Your task to perform on an android device: Open network settings Image 0: 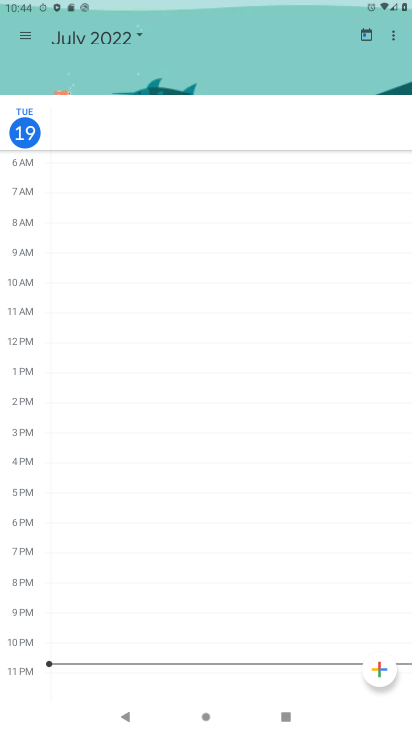
Step 0: press back button
Your task to perform on an android device: Open network settings Image 1: 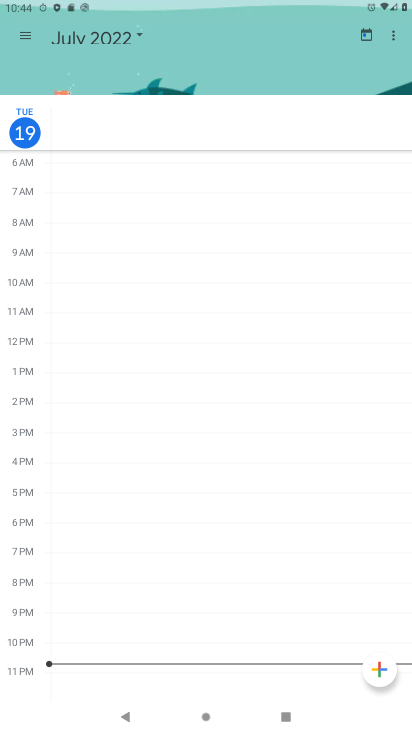
Step 1: press back button
Your task to perform on an android device: Open network settings Image 2: 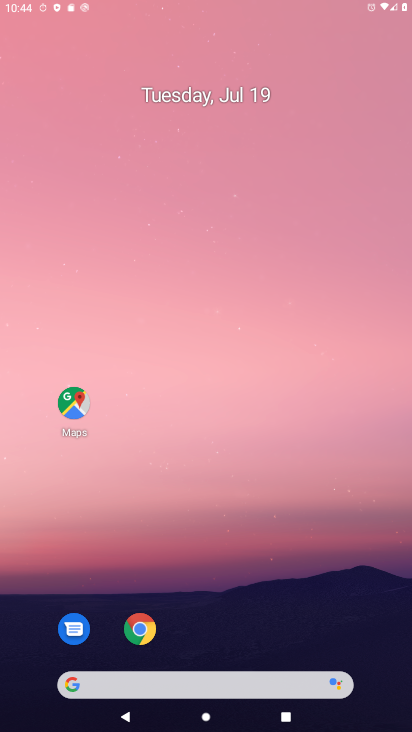
Step 2: press back button
Your task to perform on an android device: Open network settings Image 3: 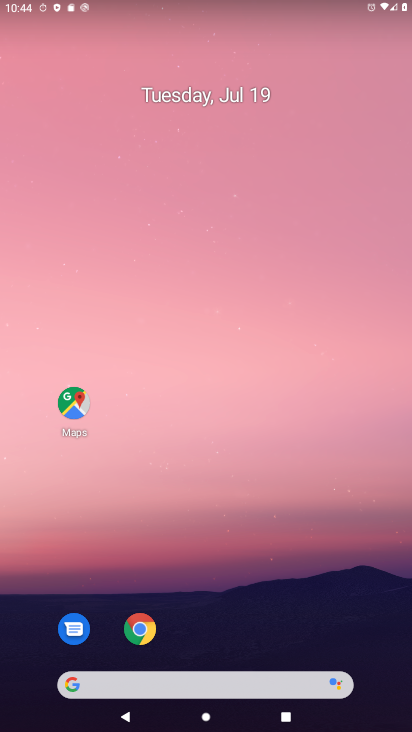
Step 3: drag from (281, 662) to (279, 96)
Your task to perform on an android device: Open network settings Image 4: 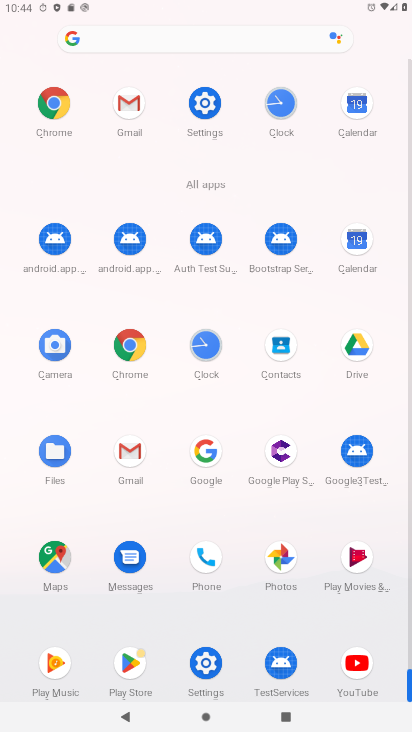
Step 4: click (196, 658)
Your task to perform on an android device: Open network settings Image 5: 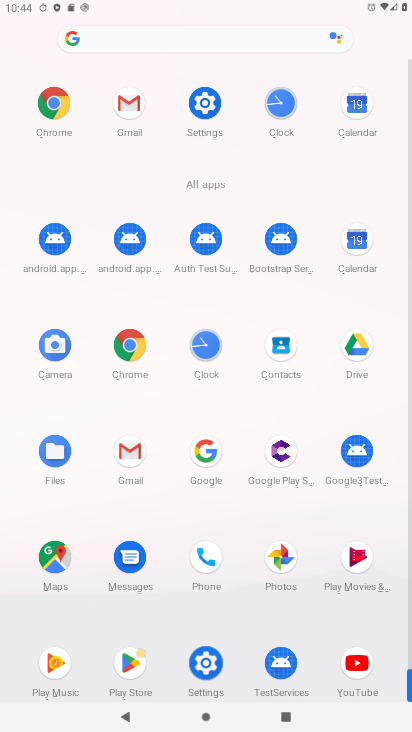
Step 5: click (196, 658)
Your task to perform on an android device: Open network settings Image 6: 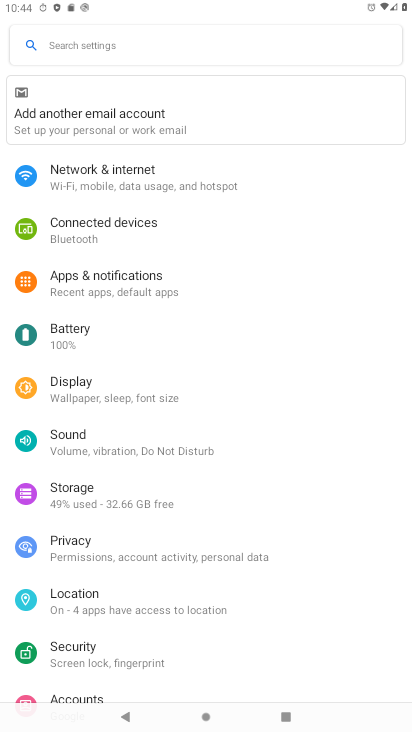
Step 6: click (120, 178)
Your task to perform on an android device: Open network settings Image 7: 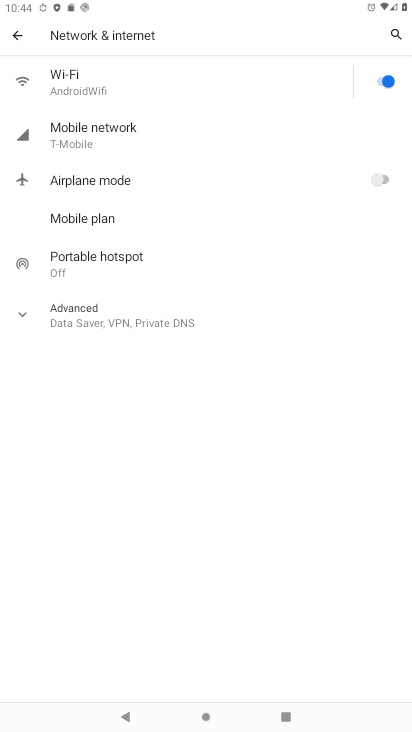
Step 7: task complete